Your task to perform on an android device: toggle notification dots Image 0: 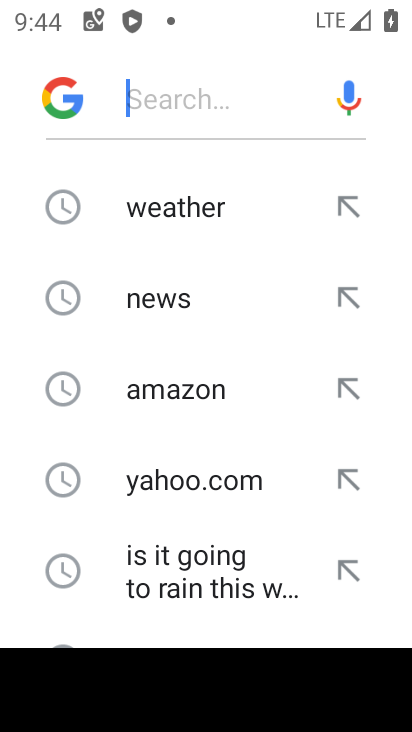
Step 0: press home button
Your task to perform on an android device: toggle notification dots Image 1: 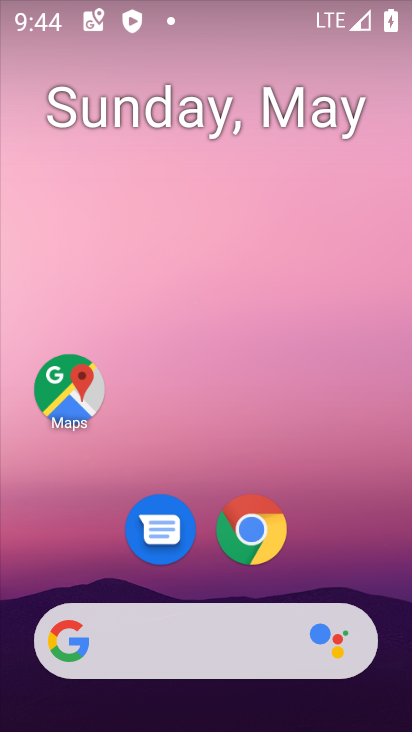
Step 1: drag from (323, 548) to (347, 32)
Your task to perform on an android device: toggle notification dots Image 2: 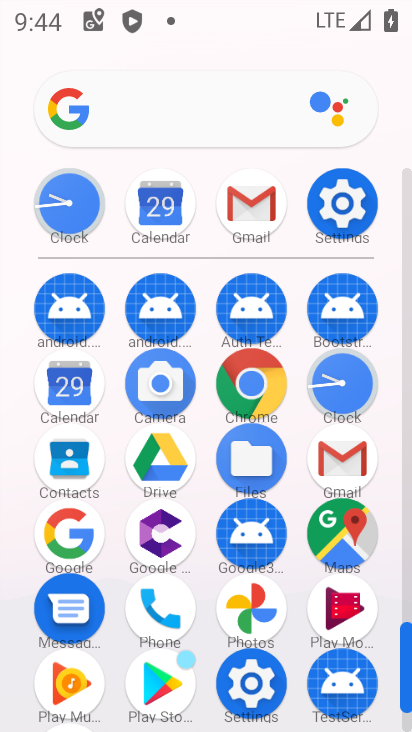
Step 2: click (329, 209)
Your task to perform on an android device: toggle notification dots Image 3: 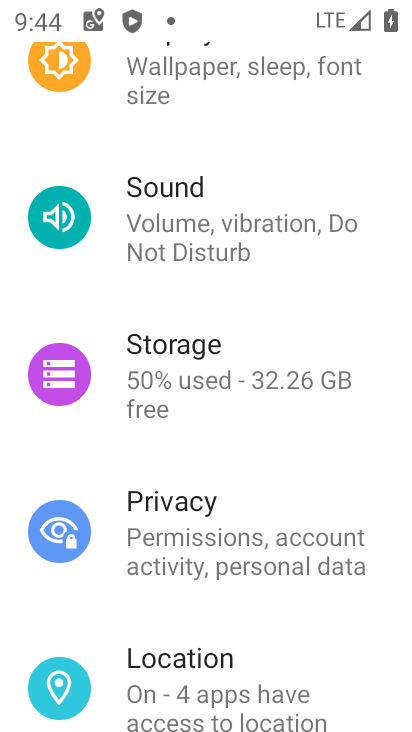
Step 3: drag from (191, 625) to (235, 316)
Your task to perform on an android device: toggle notification dots Image 4: 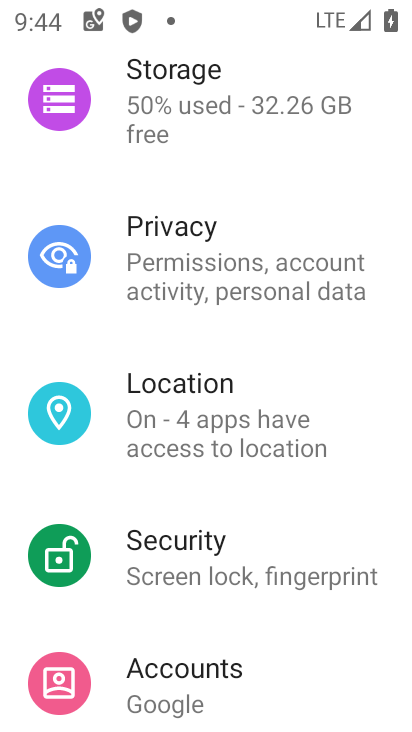
Step 4: drag from (241, 203) to (279, 716)
Your task to perform on an android device: toggle notification dots Image 5: 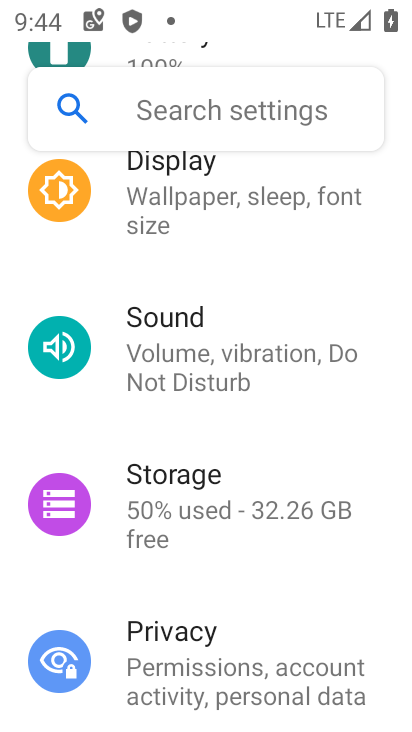
Step 5: drag from (218, 300) to (300, 718)
Your task to perform on an android device: toggle notification dots Image 6: 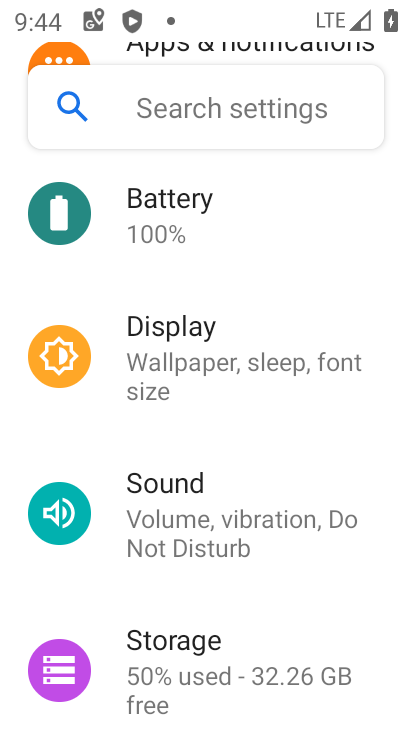
Step 6: click (249, 55)
Your task to perform on an android device: toggle notification dots Image 7: 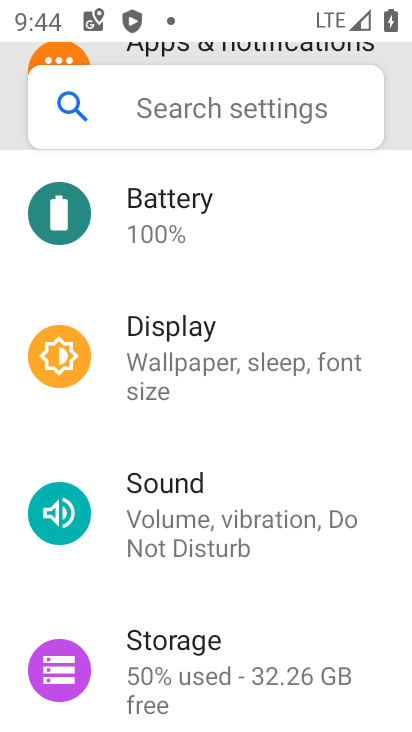
Step 7: task complete